Your task to perform on an android device: Go to settings Image 0: 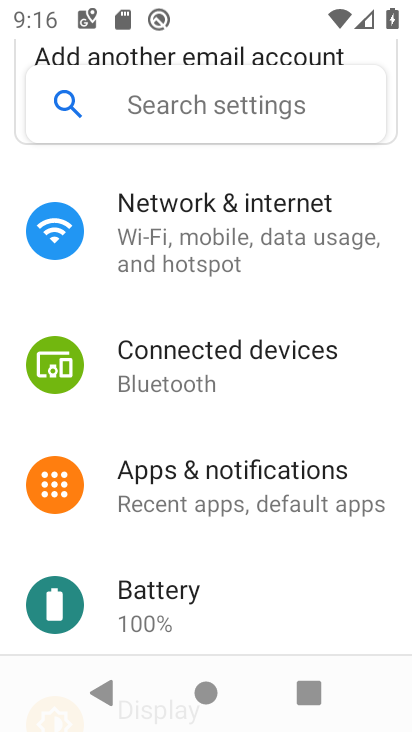
Step 0: press home button
Your task to perform on an android device: Go to settings Image 1: 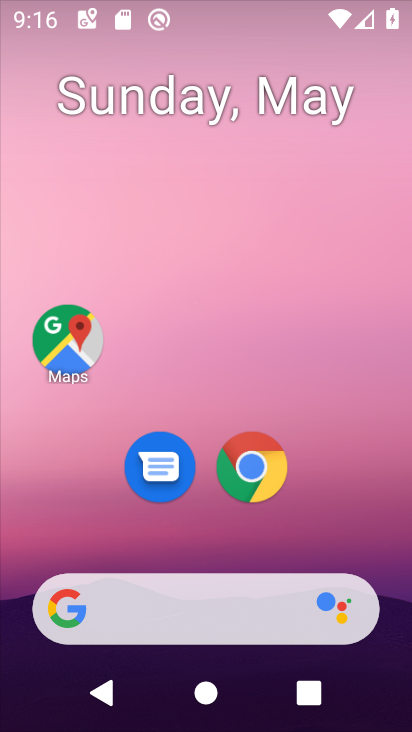
Step 1: drag from (358, 511) to (354, 163)
Your task to perform on an android device: Go to settings Image 2: 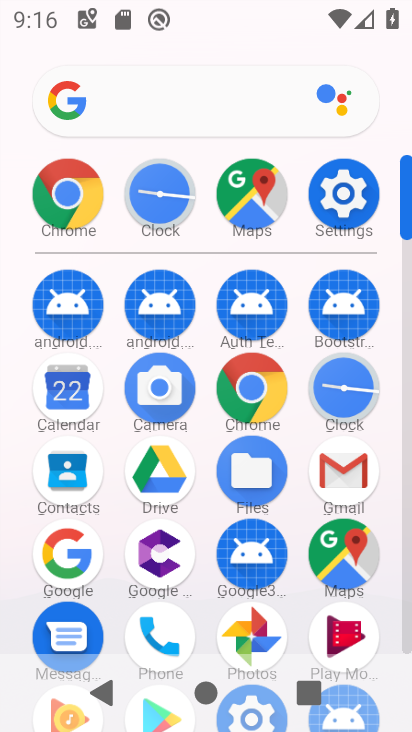
Step 2: click (355, 205)
Your task to perform on an android device: Go to settings Image 3: 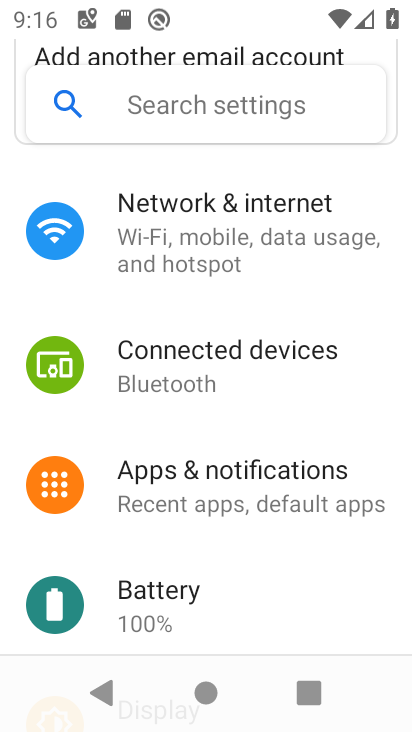
Step 3: task complete